Your task to perform on an android device: Open Youtube and go to the subscriptions tab Image 0: 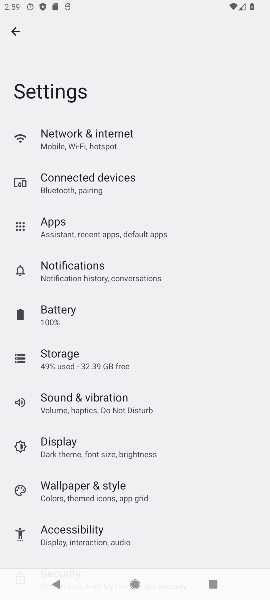
Step 0: press home button
Your task to perform on an android device: Open Youtube and go to the subscriptions tab Image 1: 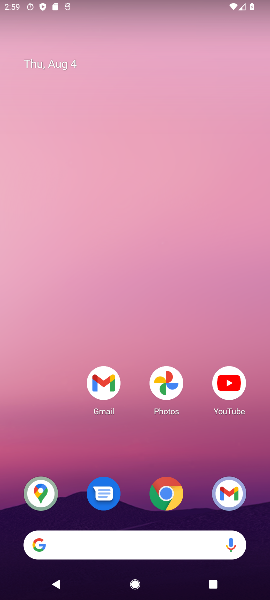
Step 1: click (229, 382)
Your task to perform on an android device: Open Youtube and go to the subscriptions tab Image 2: 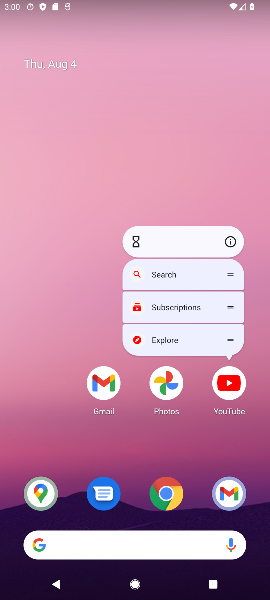
Step 2: click (236, 386)
Your task to perform on an android device: Open Youtube and go to the subscriptions tab Image 3: 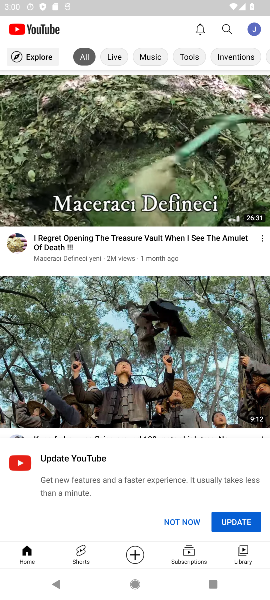
Step 3: task complete